Your task to perform on an android device: turn off location Image 0: 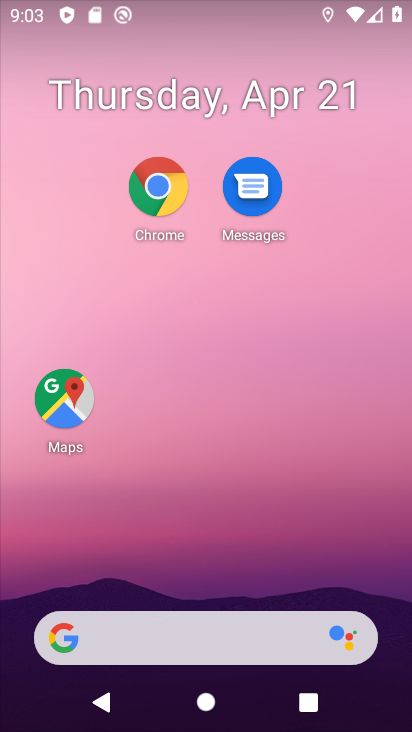
Step 0: drag from (200, 551) to (243, 69)
Your task to perform on an android device: turn off location Image 1: 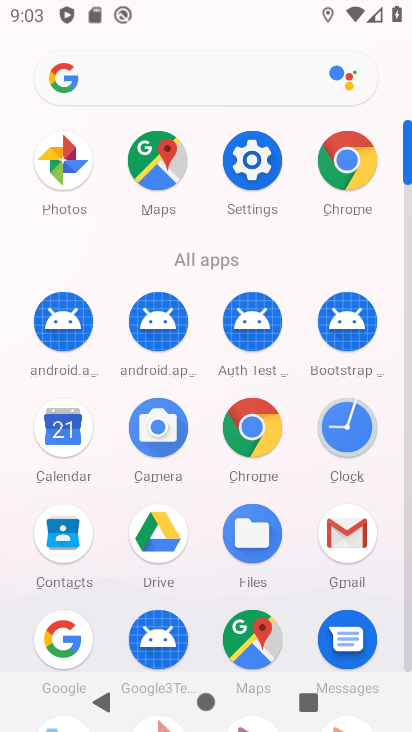
Step 1: click (259, 171)
Your task to perform on an android device: turn off location Image 2: 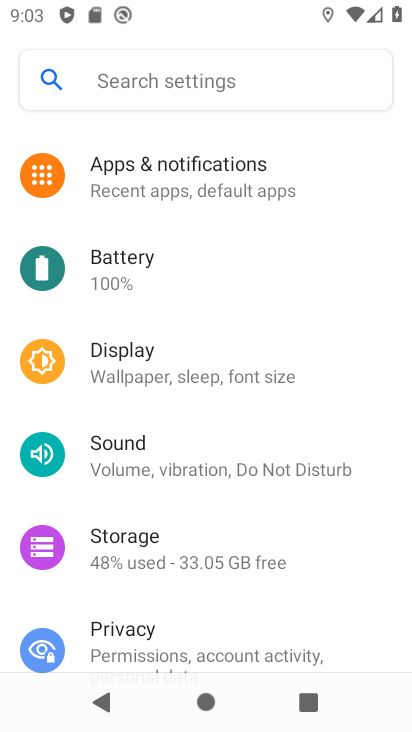
Step 2: drag from (181, 578) to (228, 107)
Your task to perform on an android device: turn off location Image 3: 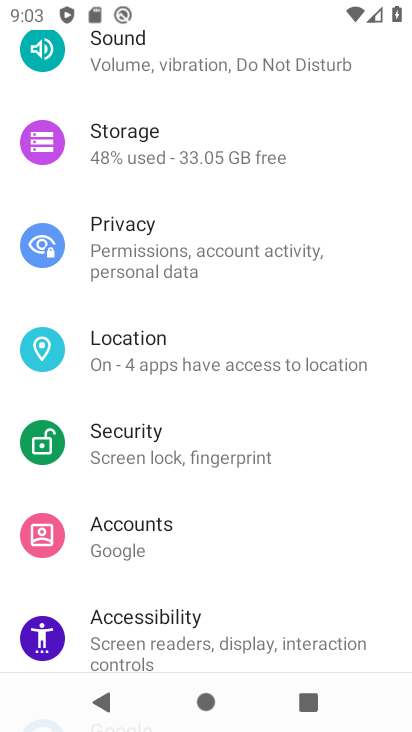
Step 3: click (220, 366)
Your task to perform on an android device: turn off location Image 4: 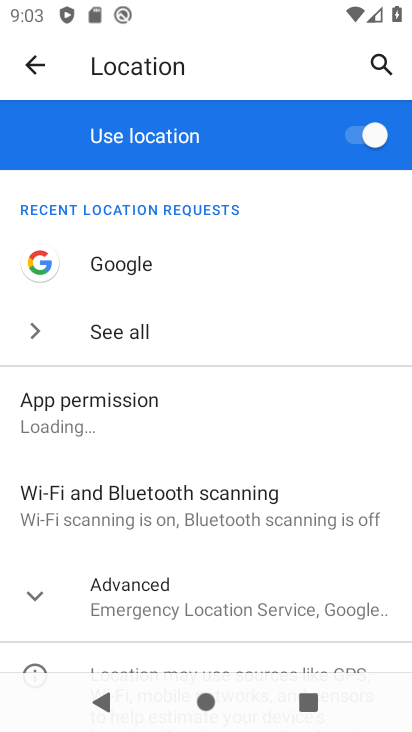
Step 4: click (351, 136)
Your task to perform on an android device: turn off location Image 5: 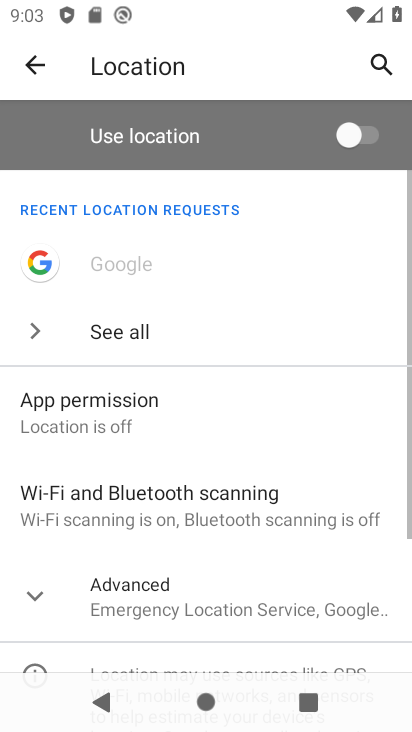
Step 5: task complete